Your task to perform on an android device: check data usage Image 0: 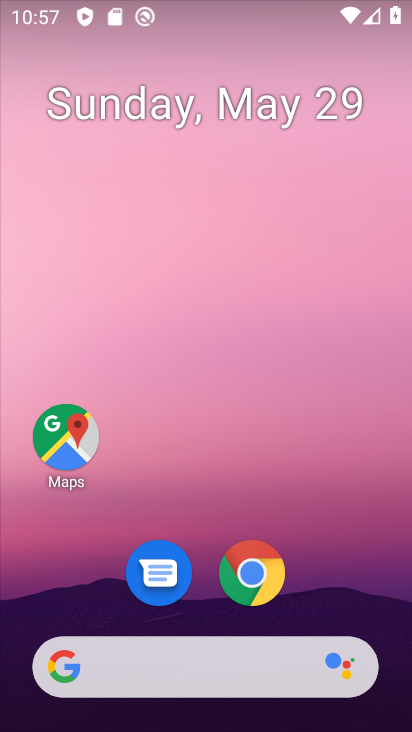
Step 0: drag from (343, 577) to (288, 130)
Your task to perform on an android device: check data usage Image 1: 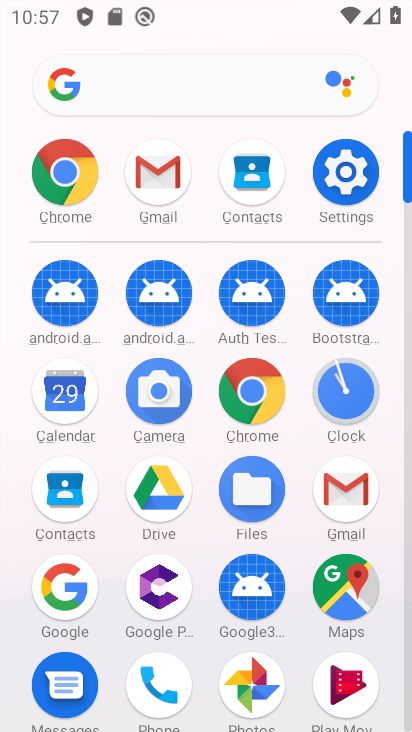
Step 1: click (347, 189)
Your task to perform on an android device: check data usage Image 2: 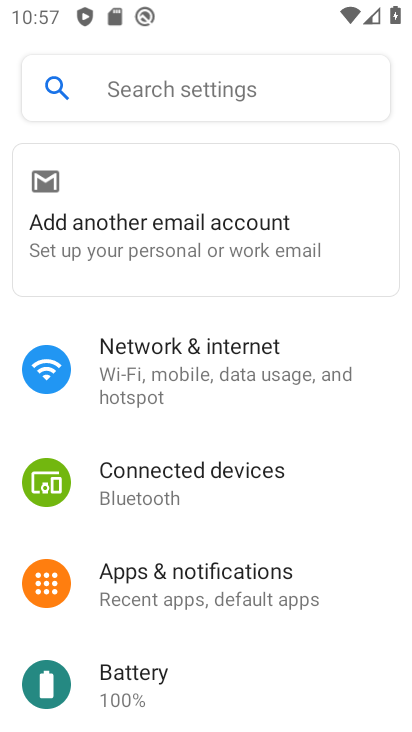
Step 2: drag from (347, 684) to (341, 272)
Your task to perform on an android device: check data usage Image 3: 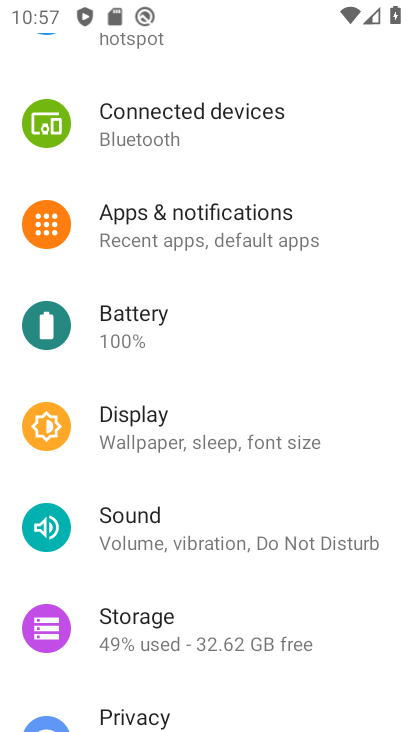
Step 3: drag from (354, 673) to (320, 378)
Your task to perform on an android device: check data usage Image 4: 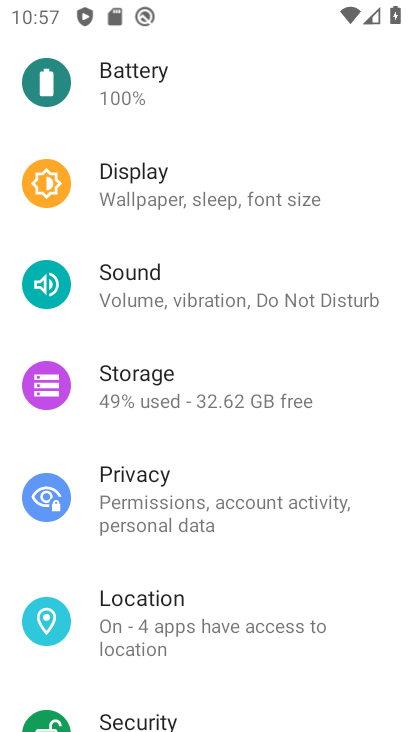
Step 4: drag from (312, 107) to (306, 646)
Your task to perform on an android device: check data usage Image 5: 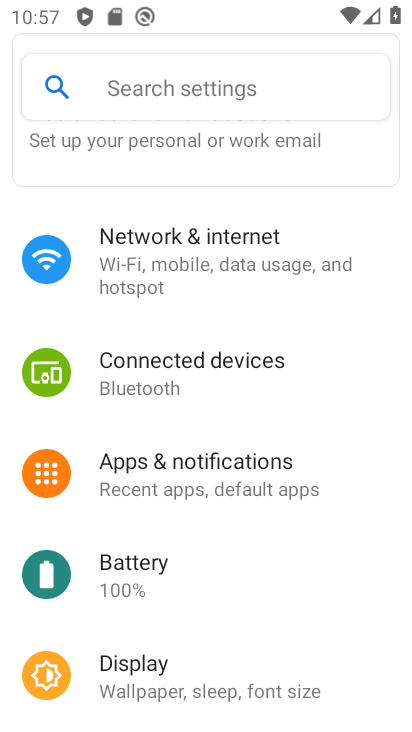
Step 5: click (167, 254)
Your task to perform on an android device: check data usage Image 6: 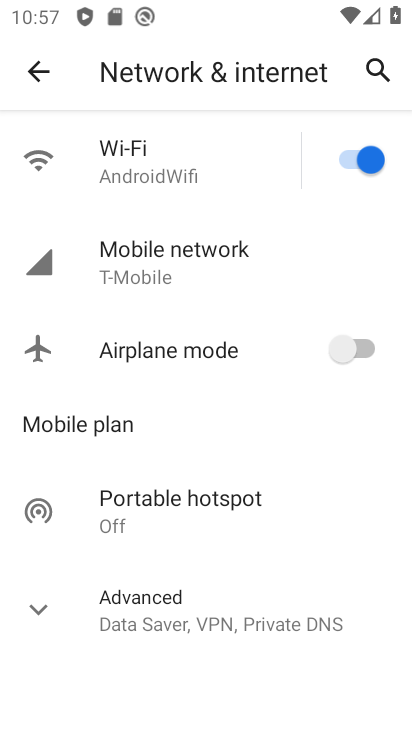
Step 6: click (157, 252)
Your task to perform on an android device: check data usage Image 7: 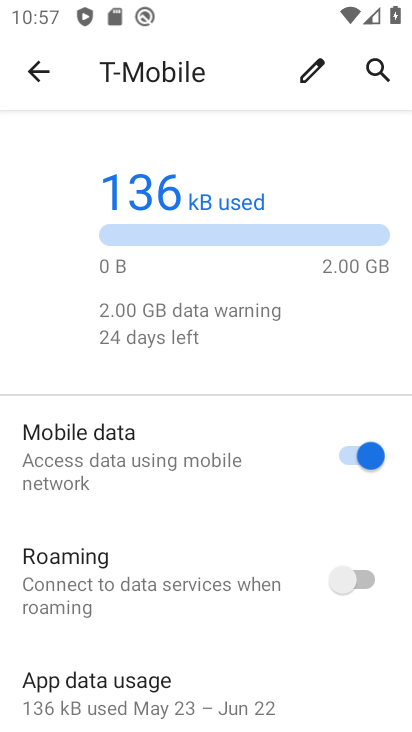
Step 7: task complete